Your task to perform on an android device: allow notifications from all sites in the chrome app Image 0: 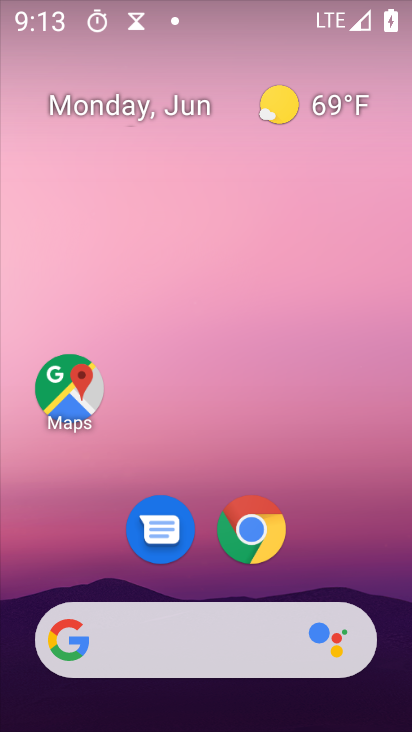
Step 0: click (253, 523)
Your task to perform on an android device: allow notifications from all sites in the chrome app Image 1: 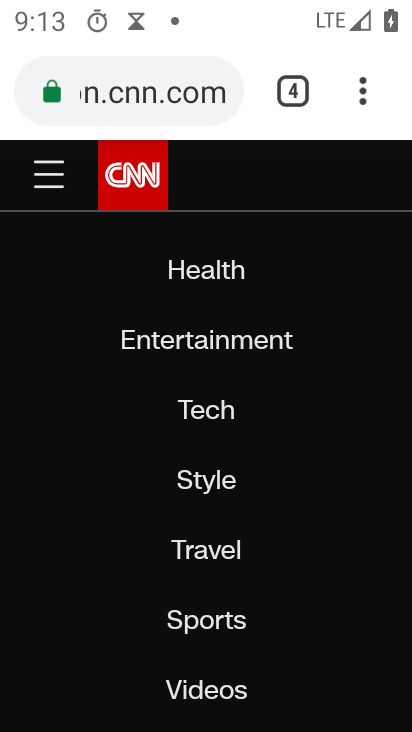
Step 1: click (363, 82)
Your task to perform on an android device: allow notifications from all sites in the chrome app Image 2: 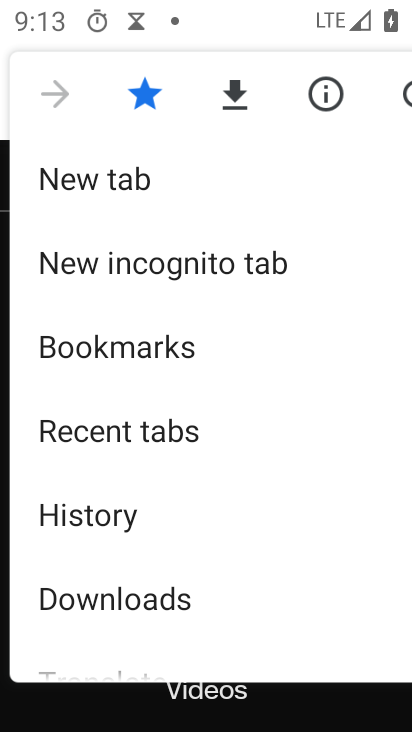
Step 2: drag from (281, 491) to (197, 45)
Your task to perform on an android device: allow notifications from all sites in the chrome app Image 3: 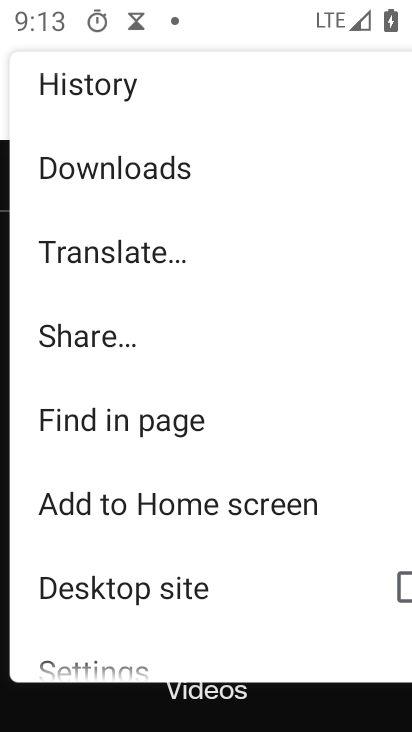
Step 3: drag from (183, 475) to (156, 37)
Your task to perform on an android device: allow notifications from all sites in the chrome app Image 4: 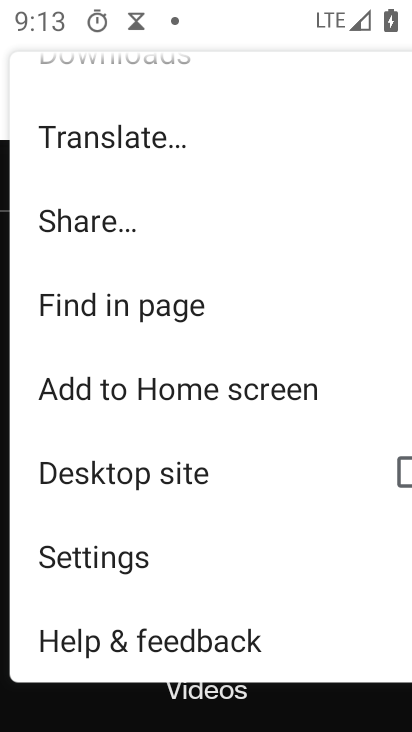
Step 4: click (96, 548)
Your task to perform on an android device: allow notifications from all sites in the chrome app Image 5: 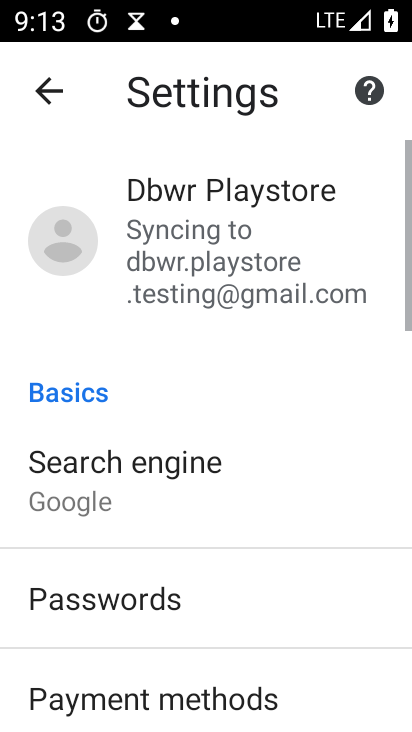
Step 5: drag from (156, 578) to (130, 81)
Your task to perform on an android device: allow notifications from all sites in the chrome app Image 6: 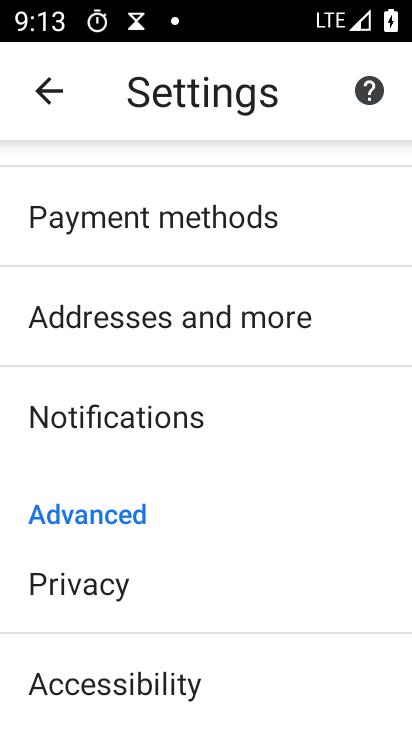
Step 6: click (190, 429)
Your task to perform on an android device: allow notifications from all sites in the chrome app Image 7: 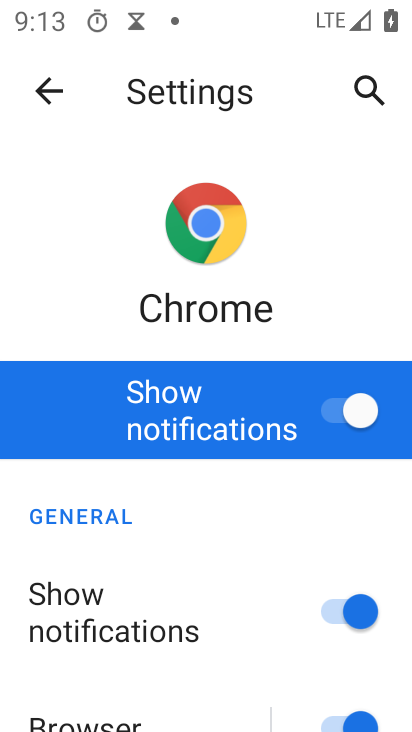
Step 7: drag from (228, 546) to (248, 9)
Your task to perform on an android device: allow notifications from all sites in the chrome app Image 8: 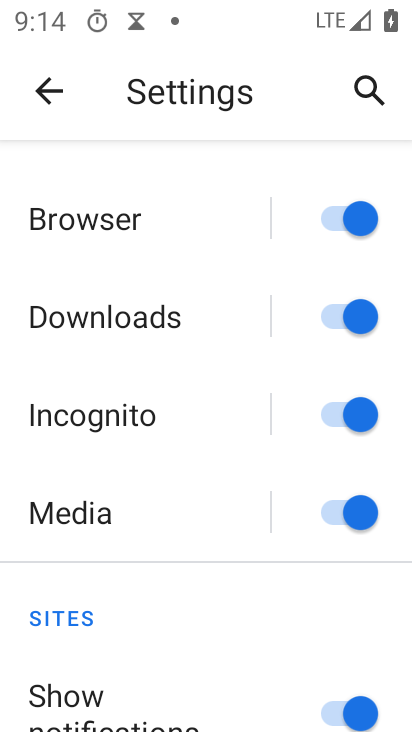
Step 8: click (54, 94)
Your task to perform on an android device: allow notifications from all sites in the chrome app Image 9: 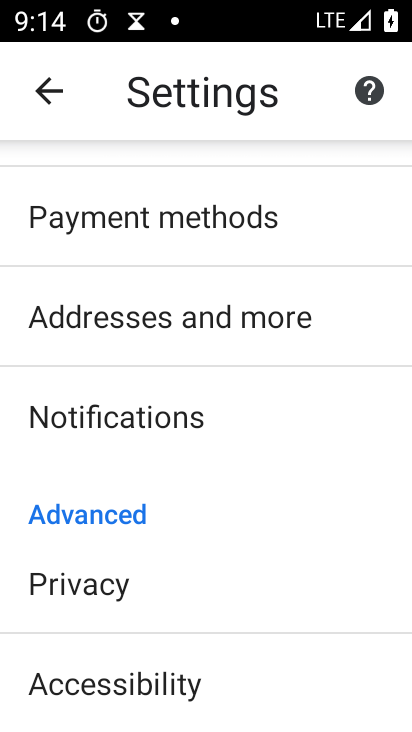
Step 9: click (192, 410)
Your task to perform on an android device: allow notifications from all sites in the chrome app Image 10: 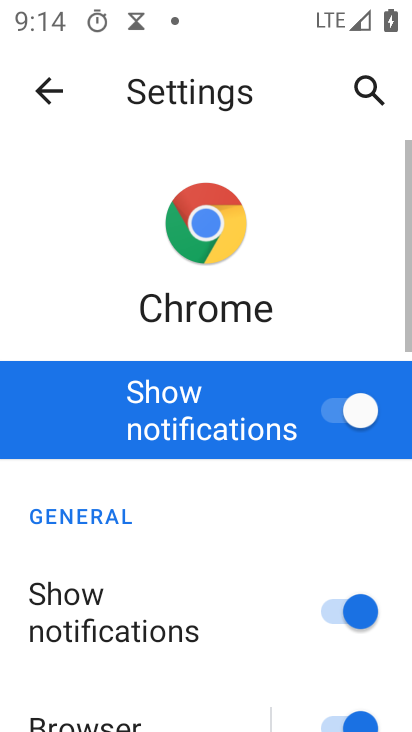
Step 10: drag from (154, 498) to (141, 32)
Your task to perform on an android device: allow notifications from all sites in the chrome app Image 11: 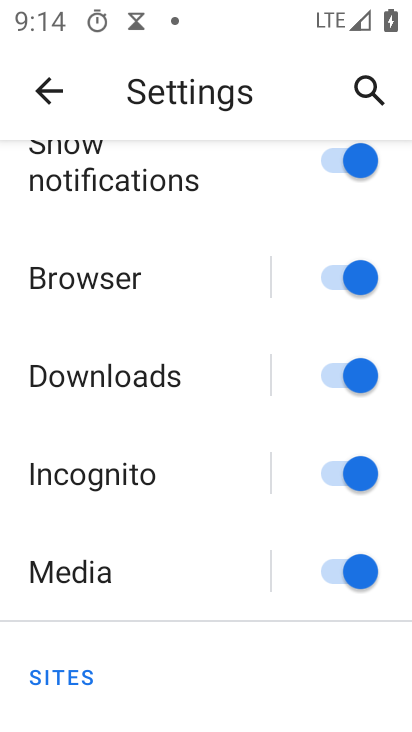
Step 11: drag from (185, 557) to (190, 55)
Your task to perform on an android device: allow notifications from all sites in the chrome app Image 12: 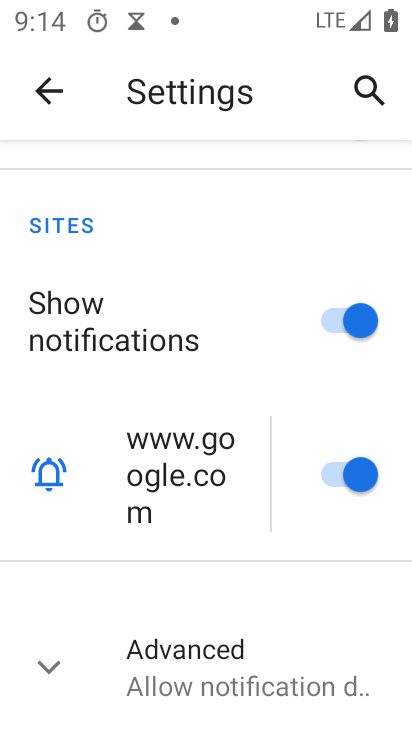
Step 12: drag from (145, 579) to (159, 164)
Your task to perform on an android device: allow notifications from all sites in the chrome app Image 13: 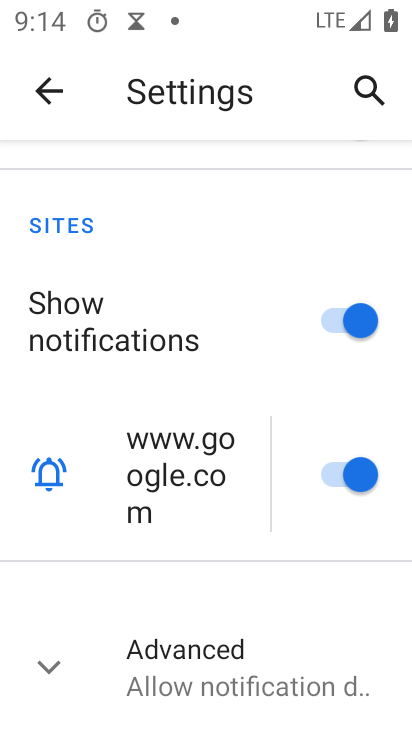
Step 13: click (181, 688)
Your task to perform on an android device: allow notifications from all sites in the chrome app Image 14: 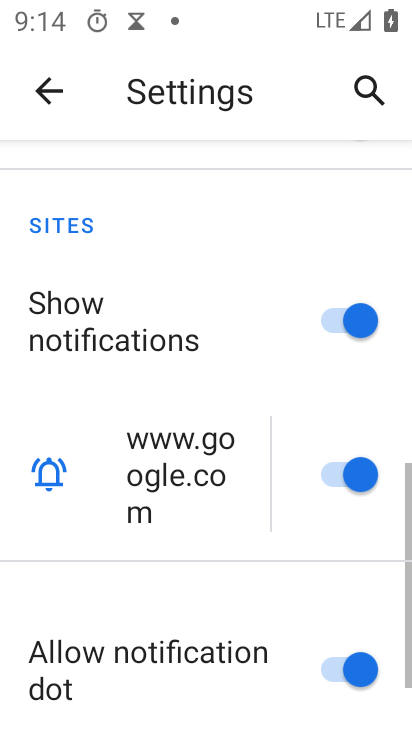
Step 14: task complete